Your task to perform on an android device: change notifications settings Image 0: 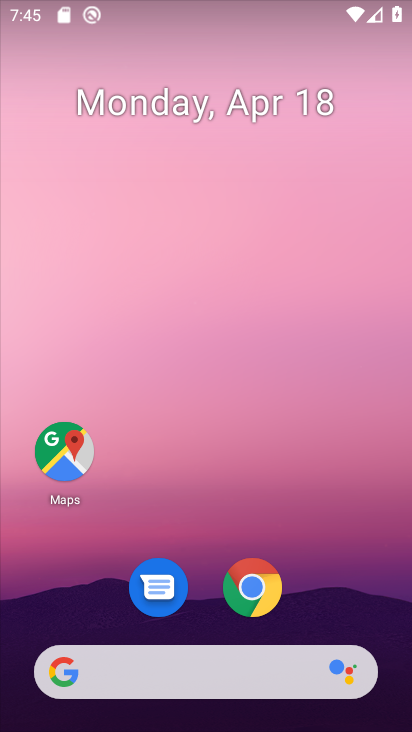
Step 0: drag from (229, 4) to (211, 539)
Your task to perform on an android device: change notifications settings Image 1: 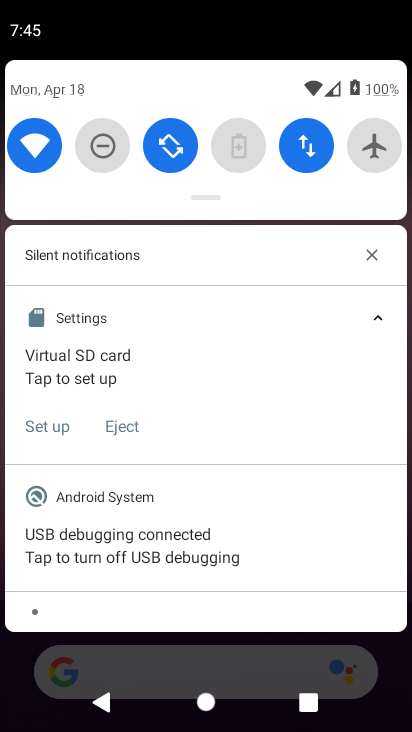
Step 1: drag from (206, 87) to (337, 529)
Your task to perform on an android device: change notifications settings Image 2: 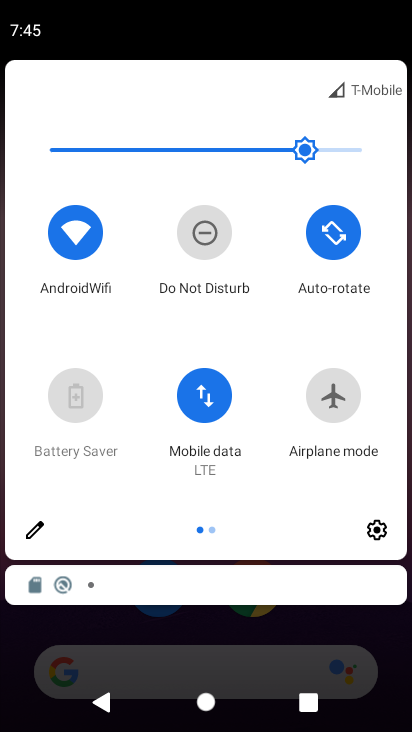
Step 2: click (374, 542)
Your task to perform on an android device: change notifications settings Image 3: 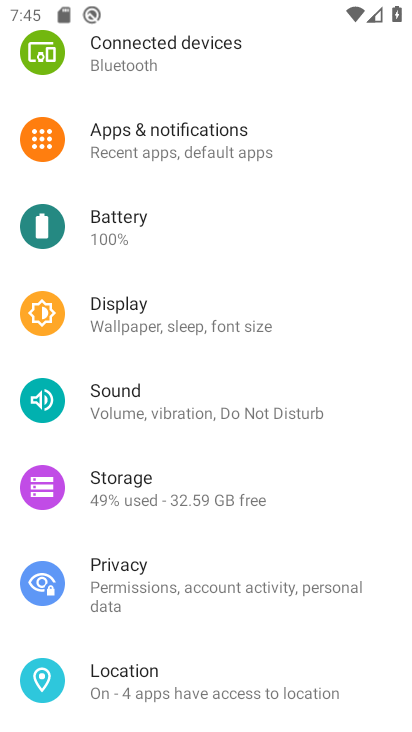
Step 3: click (211, 133)
Your task to perform on an android device: change notifications settings Image 4: 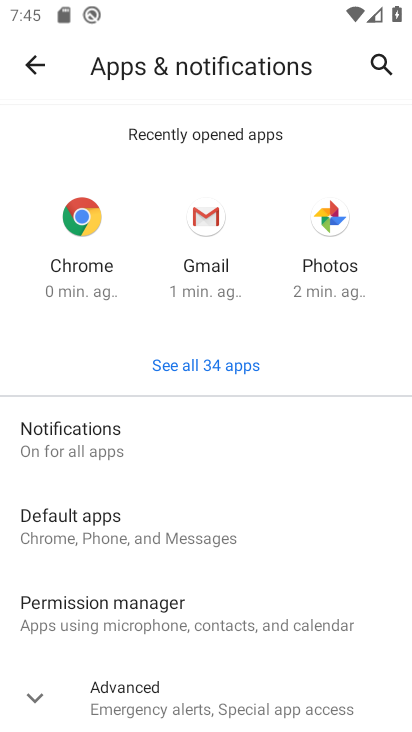
Step 4: click (111, 451)
Your task to perform on an android device: change notifications settings Image 5: 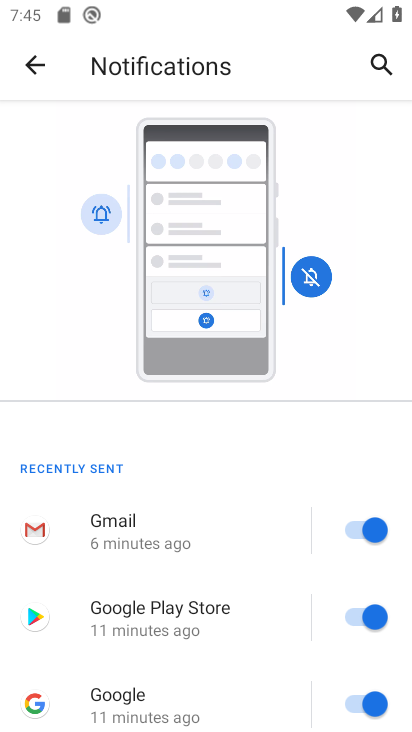
Step 5: drag from (148, 653) to (192, 229)
Your task to perform on an android device: change notifications settings Image 6: 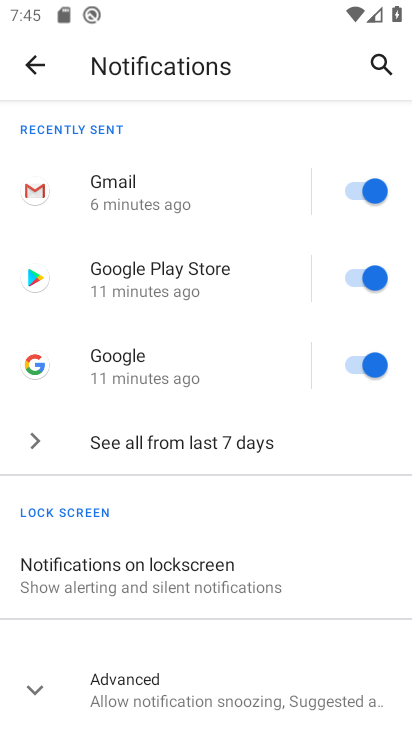
Step 6: click (105, 675)
Your task to perform on an android device: change notifications settings Image 7: 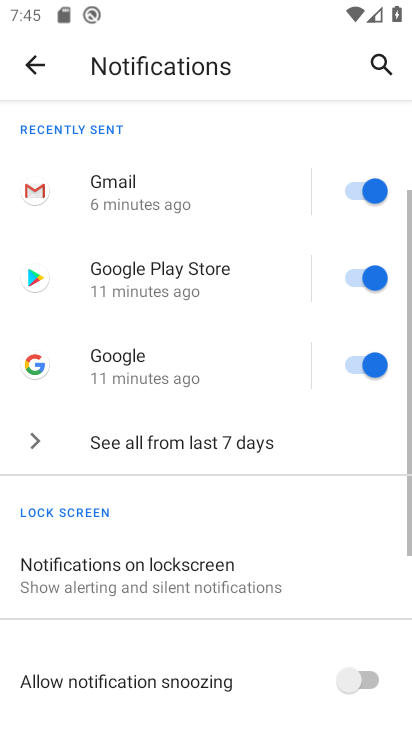
Step 7: drag from (105, 675) to (235, 98)
Your task to perform on an android device: change notifications settings Image 8: 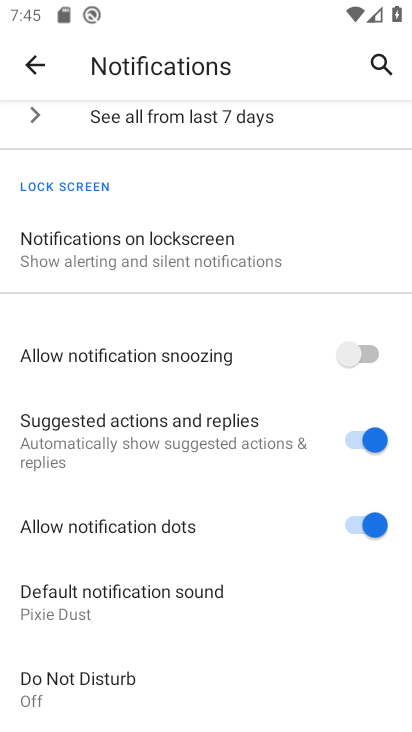
Step 8: click (371, 357)
Your task to perform on an android device: change notifications settings Image 9: 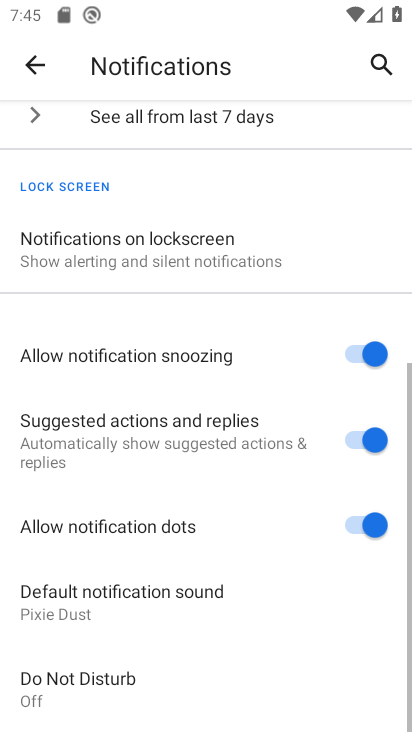
Step 9: click (363, 438)
Your task to perform on an android device: change notifications settings Image 10: 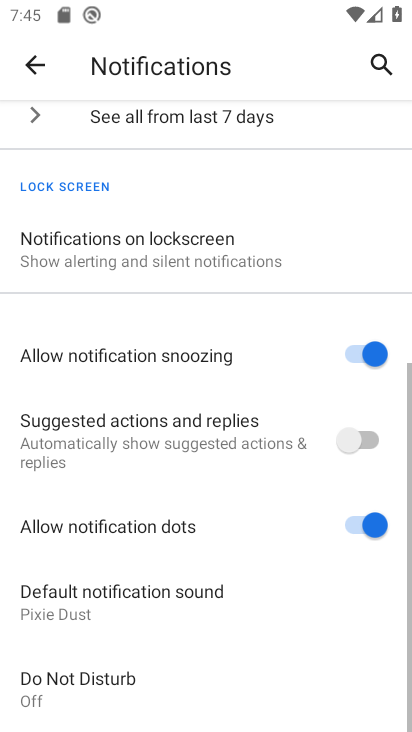
Step 10: click (373, 517)
Your task to perform on an android device: change notifications settings Image 11: 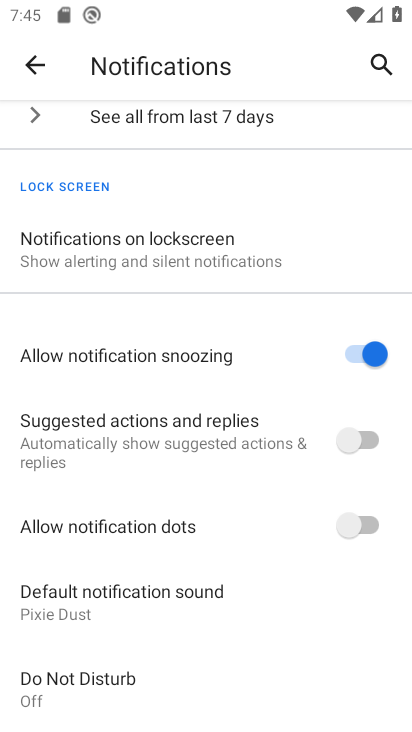
Step 11: task complete